Your task to perform on an android device: remove spam from my inbox in the gmail app Image 0: 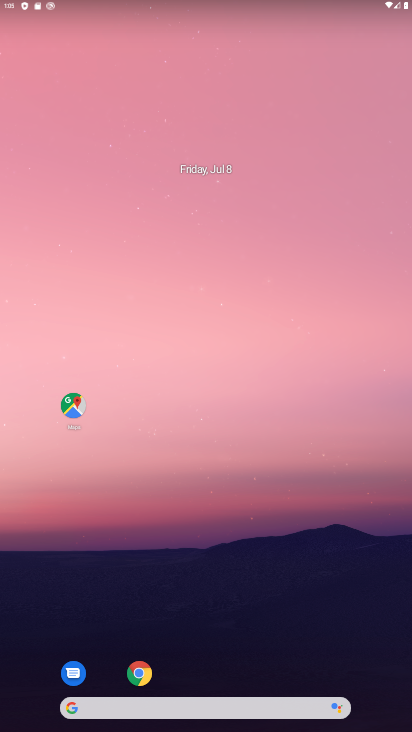
Step 0: drag from (191, 644) to (106, 232)
Your task to perform on an android device: remove spam from my inbox in the gmail app Image 1: 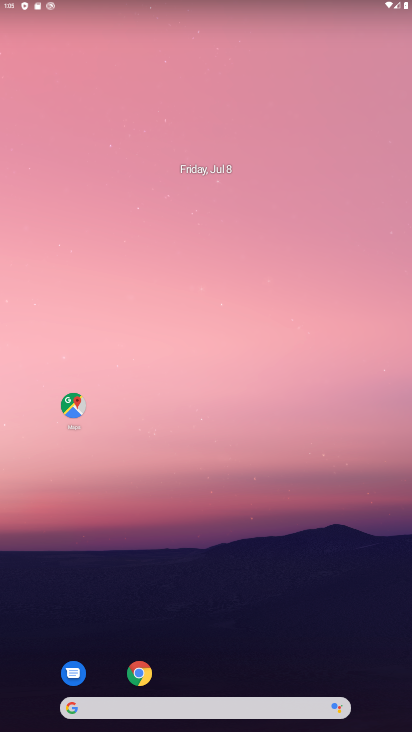
Step 1: drag from (213, 676) to (59, 104)
Your task to perform on an android device: remove spam from my inbox in the gmail app Image 2: 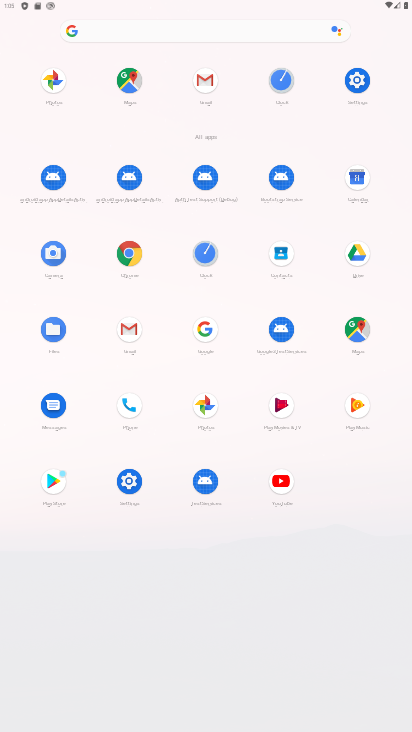
Step 2: click (137, 324)
Your task to perform on an android device: remove spam from my inbox in the gmail app Image 3: 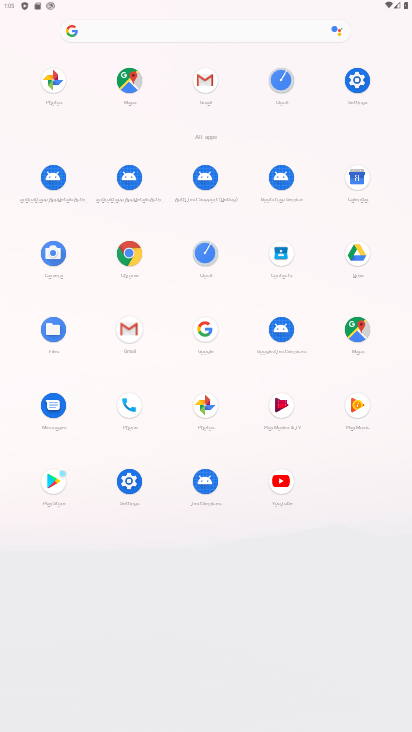
Step 3: click (137, 324)
Your task to perform on an android device: remove spam from my inbox in the gmail app Image 4: 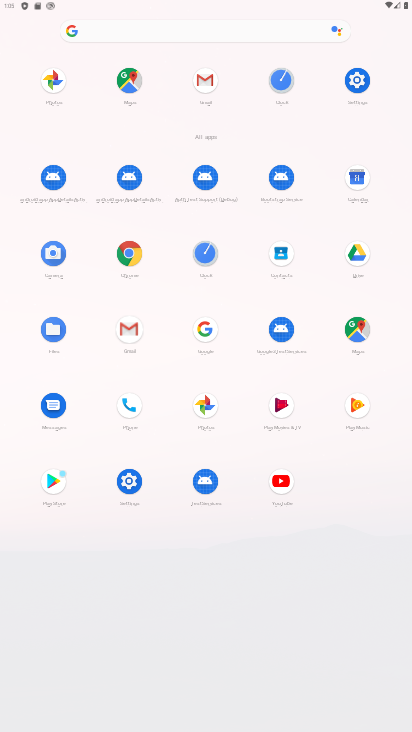
Step 4: click (136, 325)
Your task to perform on an android device: remove spam from my inbox in the gmail app Image 5: 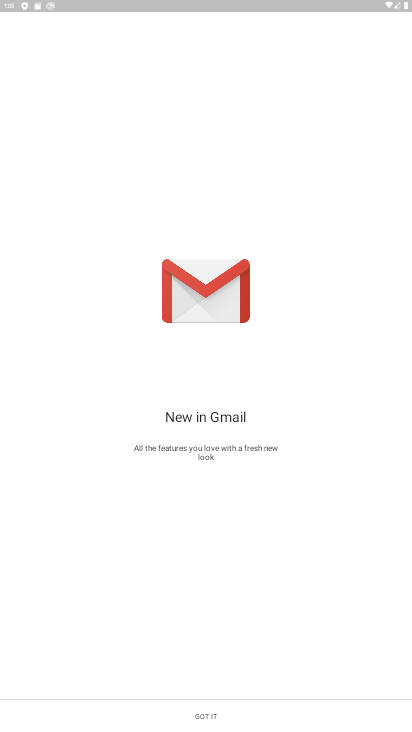
Step 5: click (219, 712)
Your task to perform on an android device: remove spam from my inbox in the gmail app Image 6: 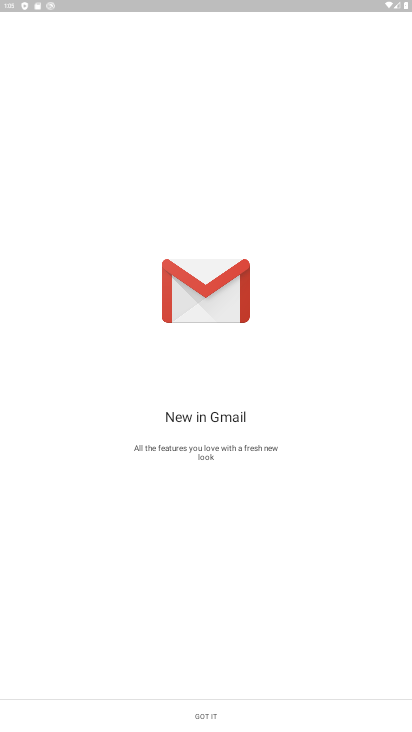
Step 6: click (219, 712)
Your task to perform on an android device: remove spam from my inbox in the gmail app Image 7: 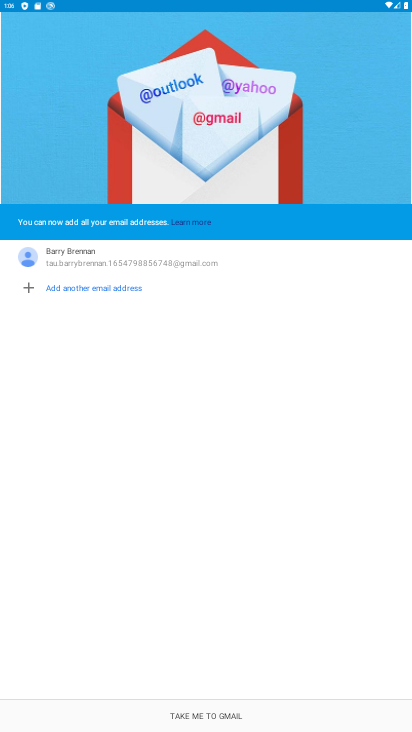
Step 7: click (231, 716)
Your task to perform on an android device: remove spam from my inbox in the gmail app Image 8: 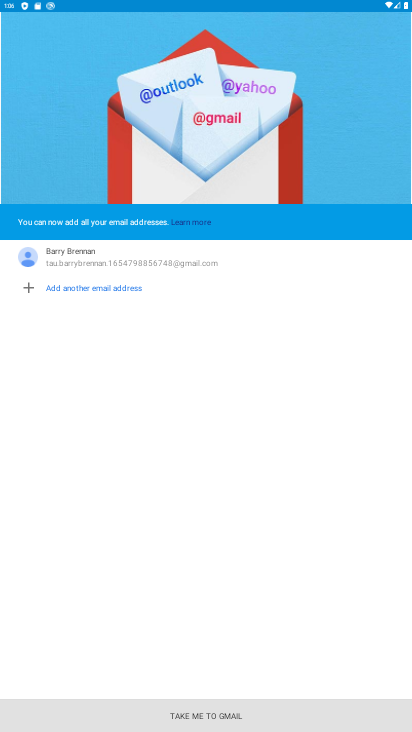
Step 8: click (227, 721)
Your task to perform on an android device: remove spam from my inbox in the gmail app Image 9: 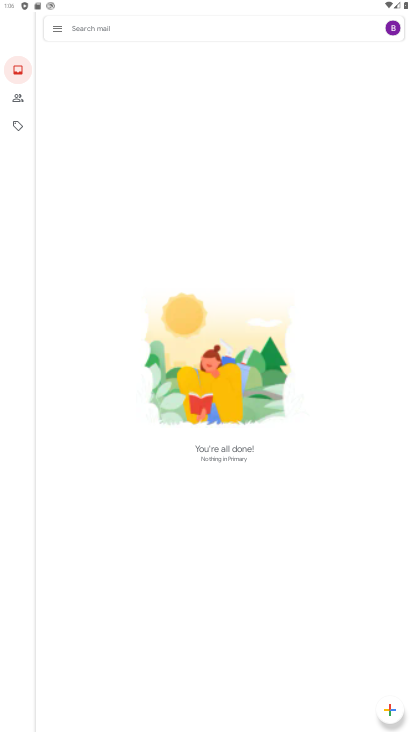
Step 9: click (20, 69)
Your task to perform on an android device: remove spam from my inbox in the gmail app Image 10: 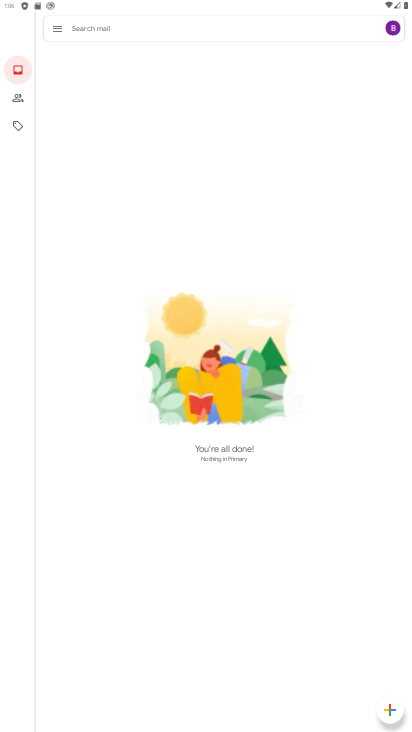
Step 10: click (20, 69)
Your task to perform on an android device: remove spam from my inbox in the gmail app Image 11: 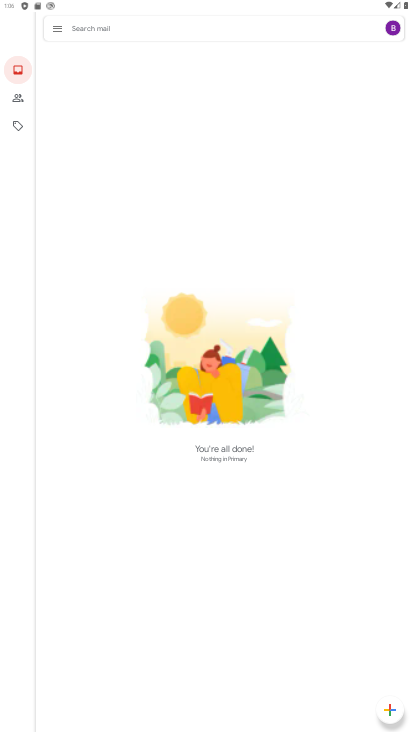
Step 11: click (14, 67)
Your task to perform on an android device: remove spam from my inbox in the gmail app Image 12: 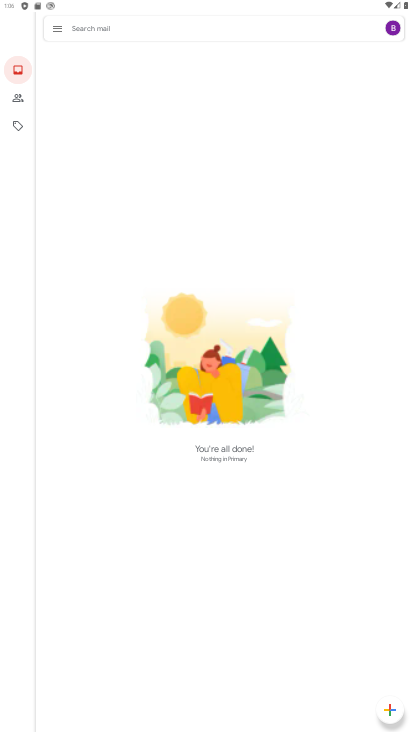
Step 12: click (14, 66)
Your task to perform on an android device: remove spam from my inbox in the gmail app Image 13: 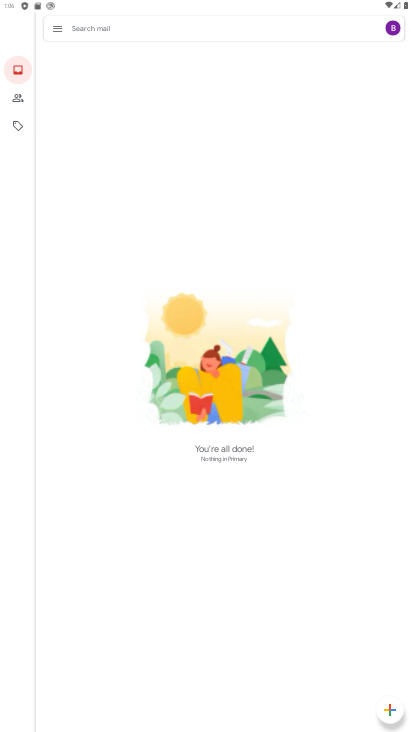
Step 13: click (14, 66)
Your task to perform on an android device: remove spam from my inbox in the gmail app Image 14: 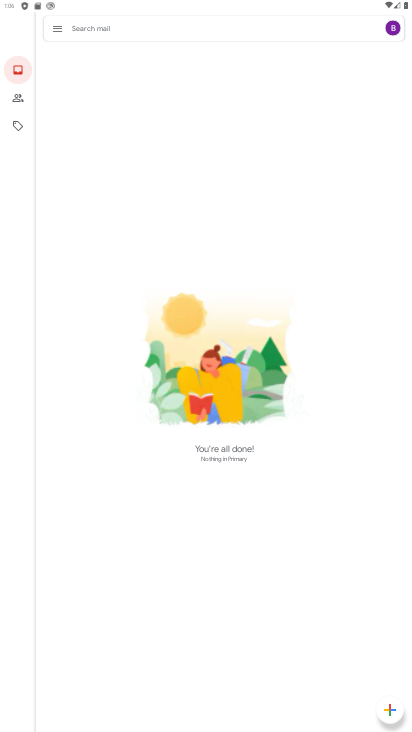
Step 14: click (20, 68)
Your task to perform on an android device: remove spam from my inbox in the gmail app Image 15: 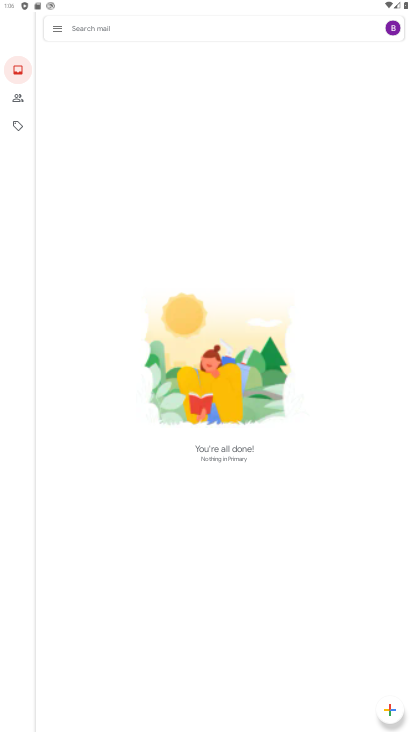
Step 15: click (17, 70)
Your task to perform on an android device: remove spam from my inbox in the gmail app Image 16: 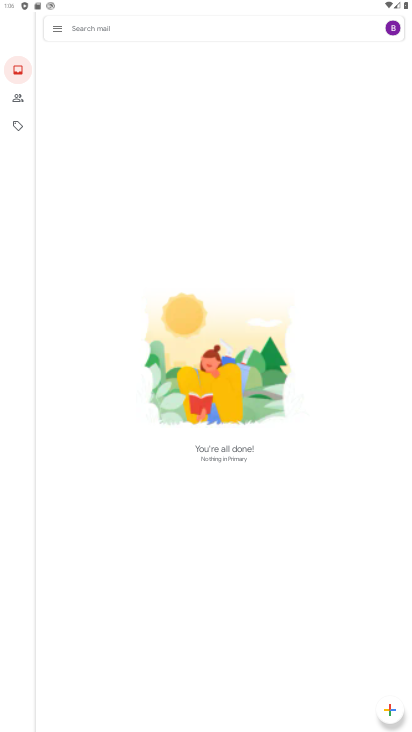
Step 16: click (17, 70)
Your task to perform on an android device: remove spam from my inbox in the gmail app Image 17: 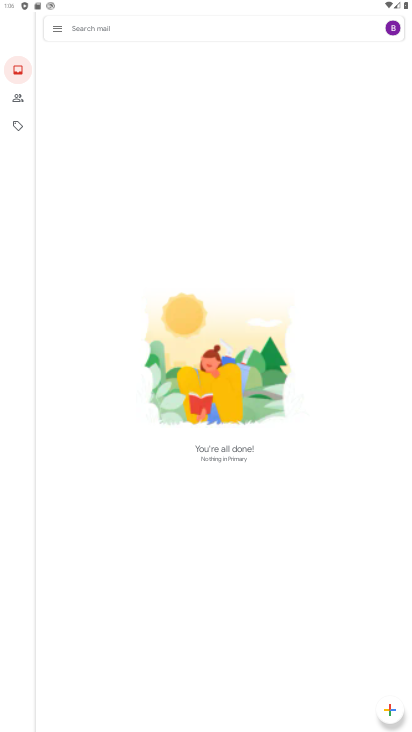
Step 17: click (18, 70)
Your task to perform on an android device: remove spam from my inbox in the gmail app Image 18: 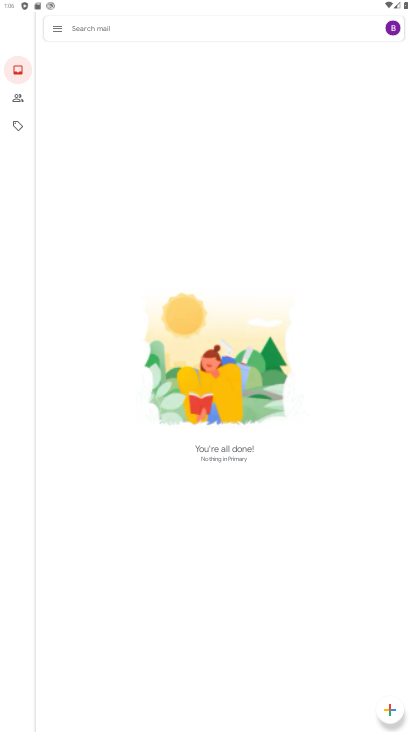
Step 18: click (19, 70)
Your task to perform on an android device: remove spam from my inbox in the gmail app Image 19: 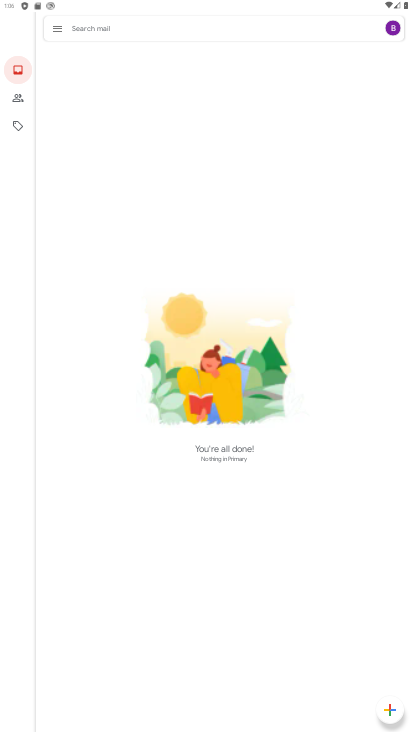
Step 19: click (19, 70)
Your task to perform on an android device: remove spam from my inbox in the gmail app Image 20: 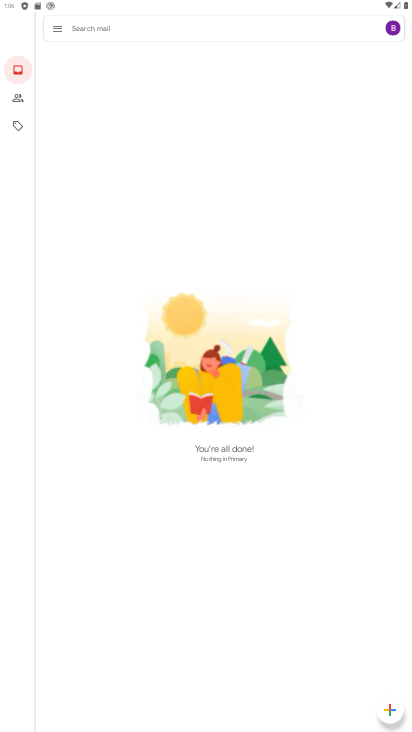
Step 20: click (19, 70)
Your task to perform on an android device: remove spam from my inbox in the gmail app Image 21: 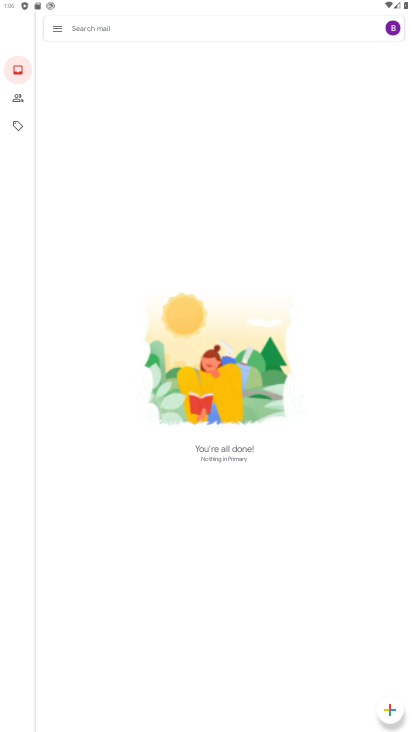
Step 21: click (19, 70)
Your task to perform on an android device: remove spam from my inbox in the gmail app Image 22: 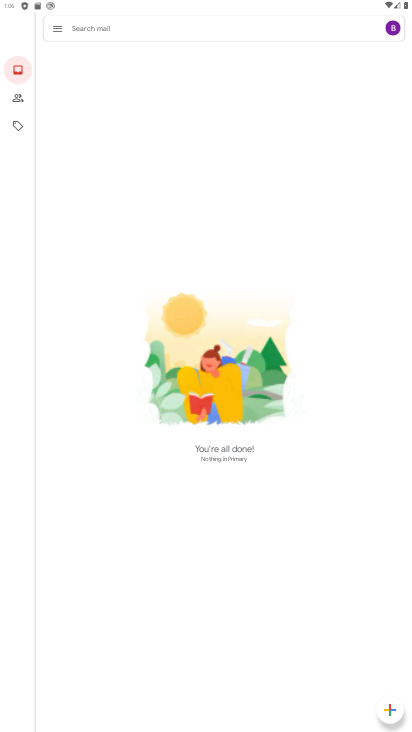
Step 22: click (19, 70)
Your task to perform on an android device: remove spam from my inbox in the gmail app Image 23: 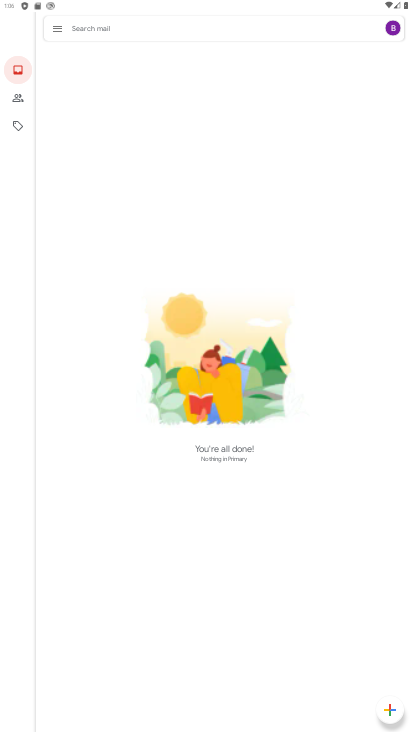
Step 23: click (19, 70)
Your task to perform on an android device: remove spam from my inbox in the gmail app Image 24: 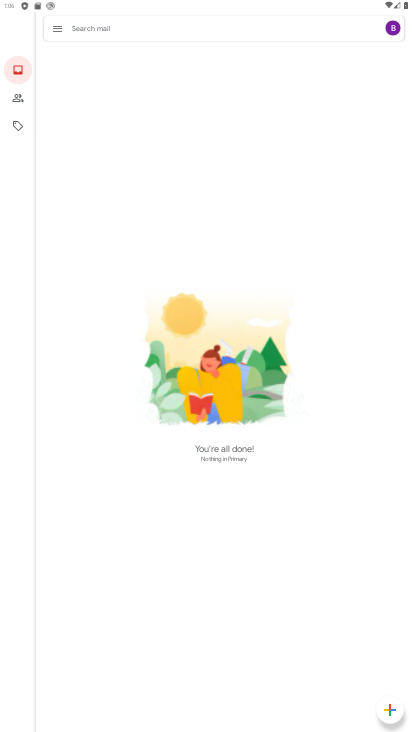
Step 24: click (19, 70)
Your task to perform on an android device: remove spam from my inbox in the gmail app Image 25: 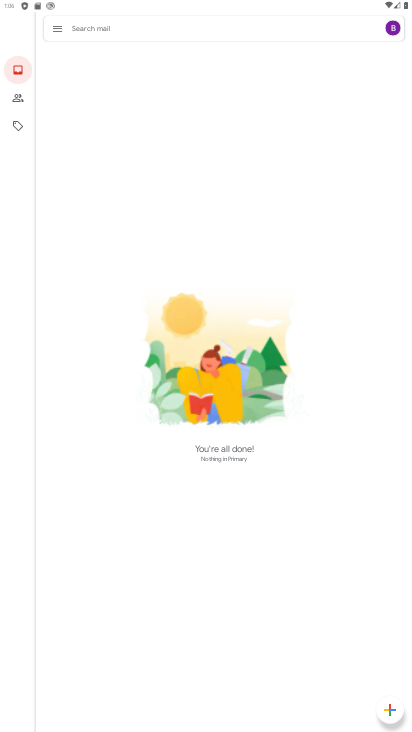
Step 25: click (19, 70)
Your task to perform on an android device: remove spam from my inbox in the gmail app Image 26: 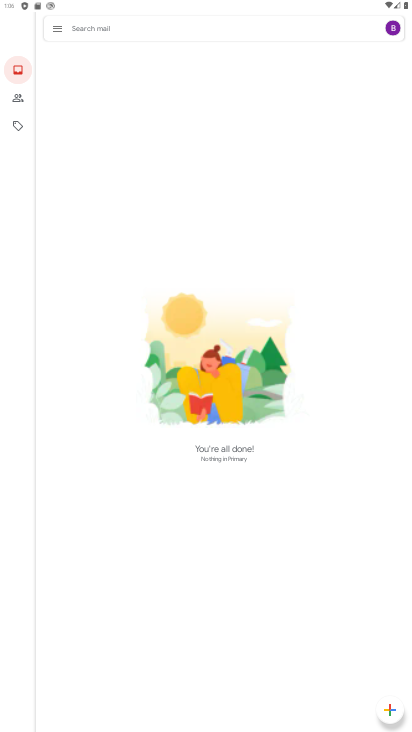
Step 26: click (19, 70)
Your task to perform on an android device: remove spam from my inbox in the gmail app Image 27: 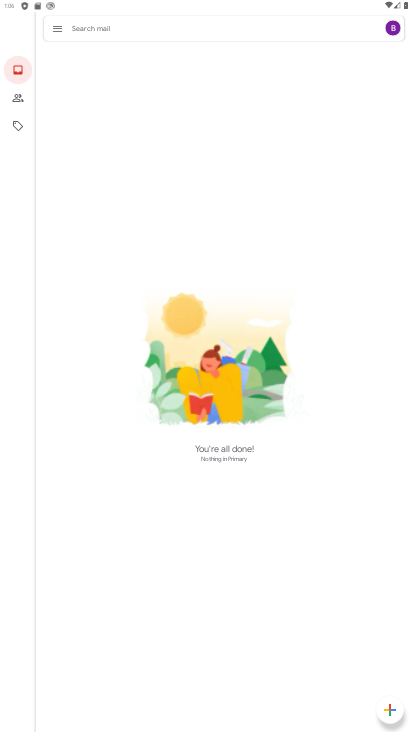
Step 27: click (19, 70)
Your task to perform on an android device: remove spam from my inbox in the gmail app Image 28: 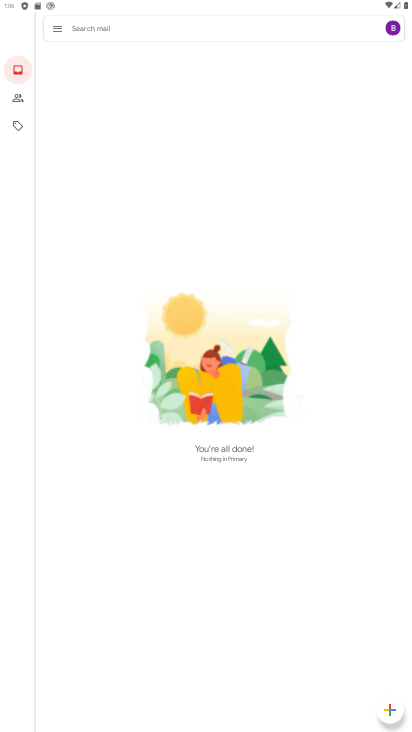
Step 28: click (19, 70)
Your task to perform on an android device: remove spam from my inbox in the gmail app Image 29: 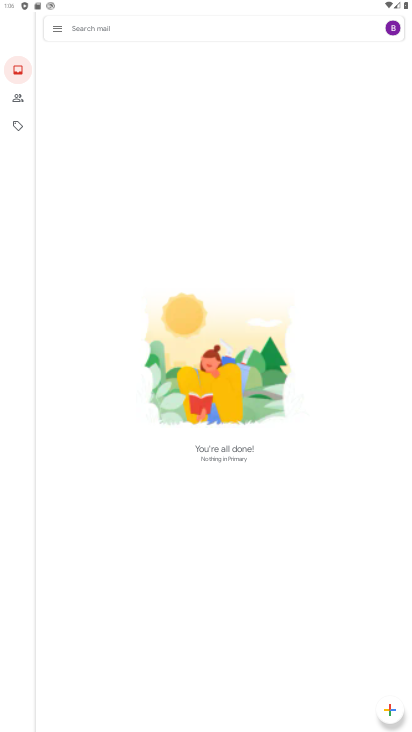
Step 29: click (19, 70)
Your task to perform on an android device: remove spam from my inbox in the gmail app Image 30: 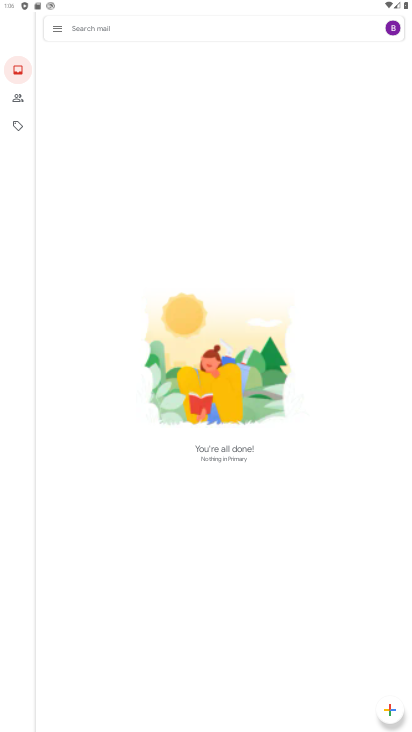
Step 30: click (19, 68)
Your task to perform on an android device: remove spam from my inbox in the gmail app Image 31: 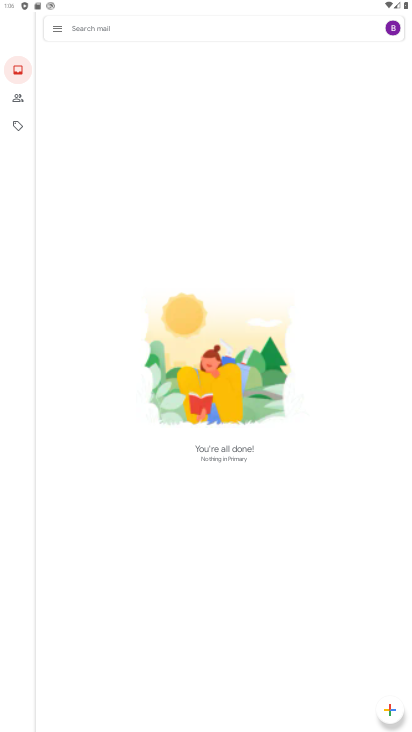
Step 31: click (19, 68)
Your task to perform on an android device: remove spam from my inbox in the gmail app Image 32: 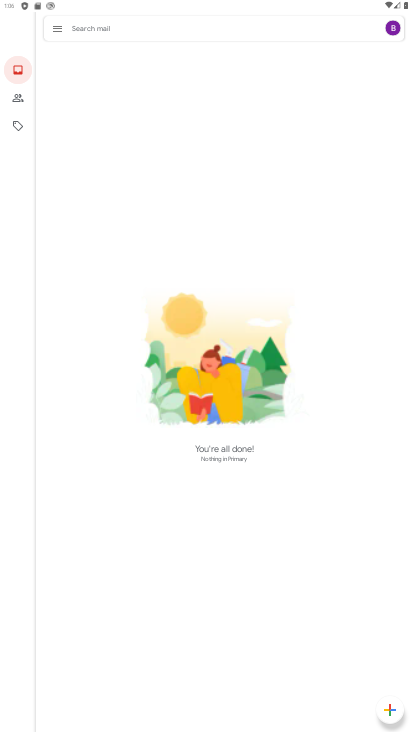
Step 32: click (20, 66)
Your task to perform on an android device: remove spam from my inbox in the gmail app Image 33: 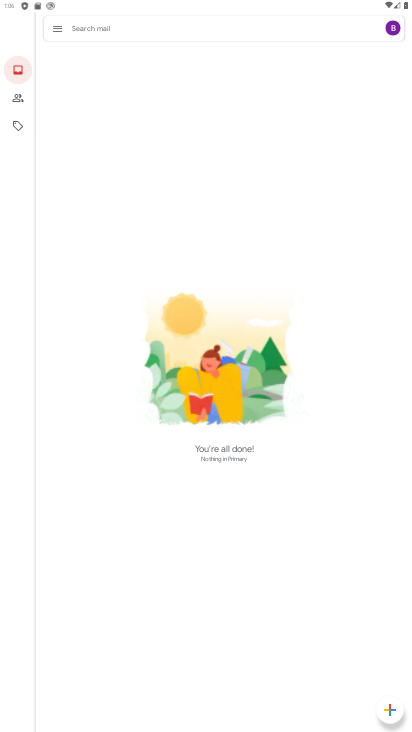
Step 33: click (20, 66)
Your task to perform on an android device: remove spam from my inbox in the gmail app Image 34: 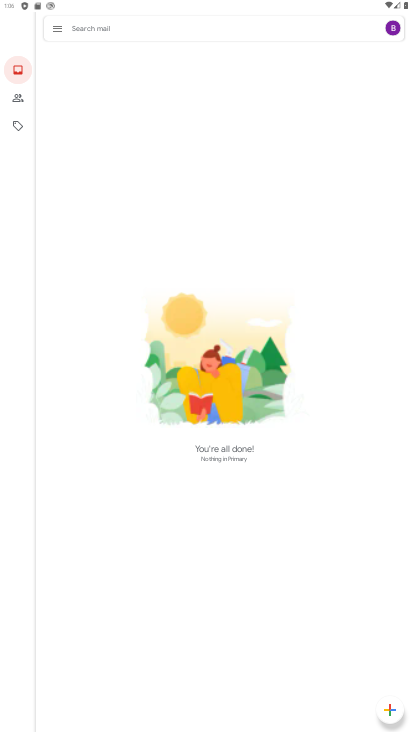
Step 34: click (64, 16)
Your task to perform on an android device: remove spam from my inbox in the gmail app Image 35: 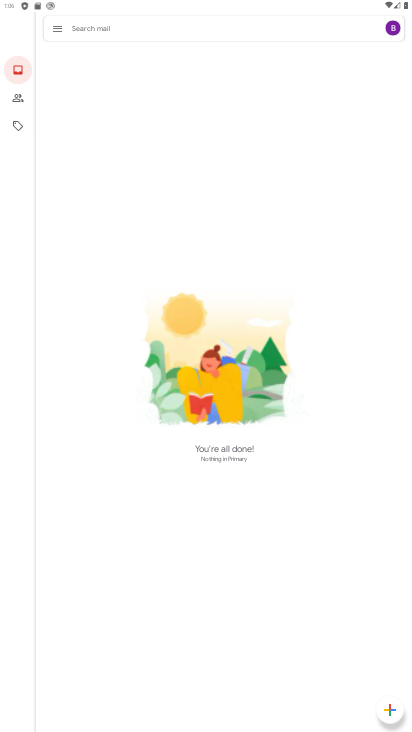
Step 35: click (51, 38)
Your task to perform on an android device: remove spam from my inbox in the gmail app Image 36: 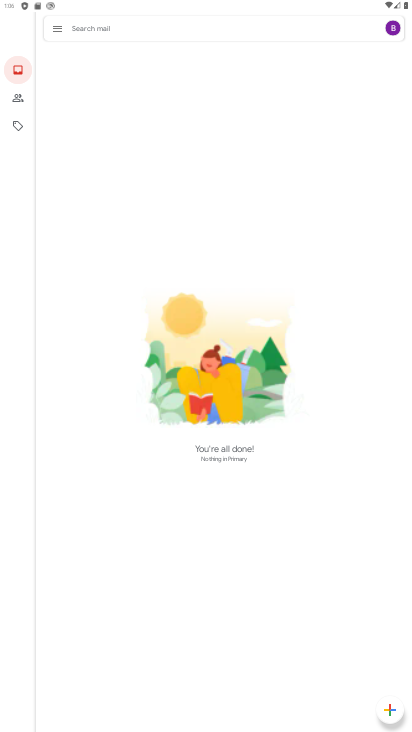
Step 36: click (52, 37)
Your task to perform on an android device: remove spam from my inbox in the gmail app Image 37: 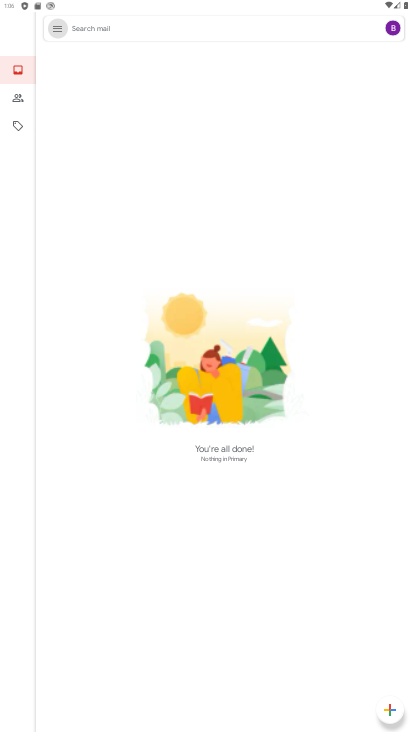
Step 37: click (53, 36)
Your task to perform on an android device: remove spam from my inbox in the gmail app Image 38: 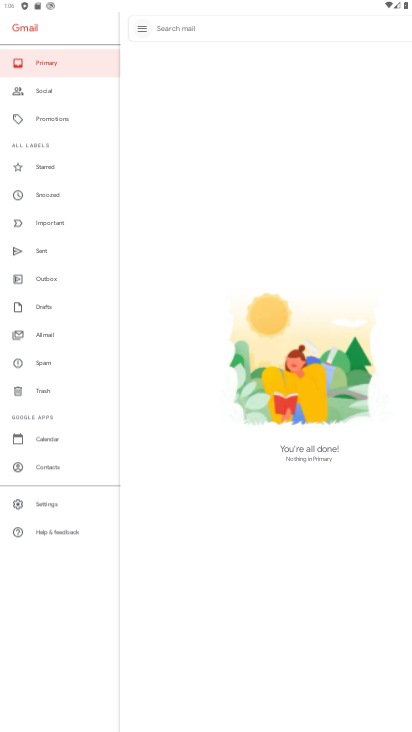
Step 38: click (54, 34)
Your task to perform on an android device: remove spam from my inbox in the gmail app Image 39: 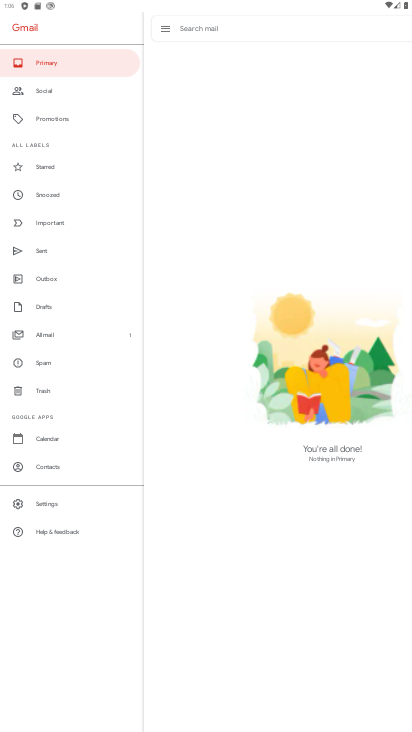
Step 39: click (50, 391)
Your task to perform on an android device: remove spam from my inbox in the gmail app Image 40: 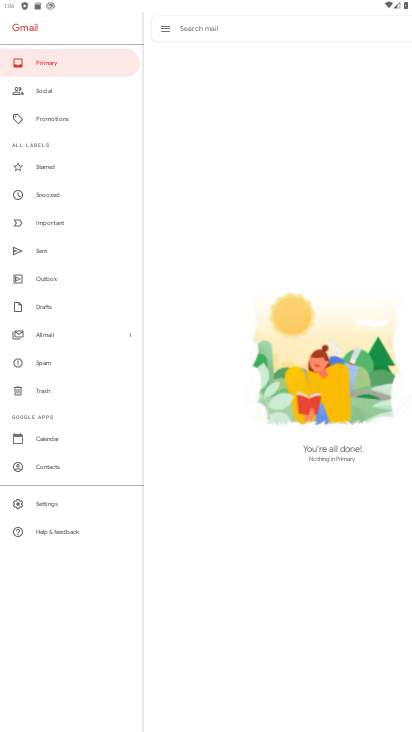
Step 40: click (50, 391)
Your task to perform on an android device: remove spam from my inbox in the gmail app Image 41: 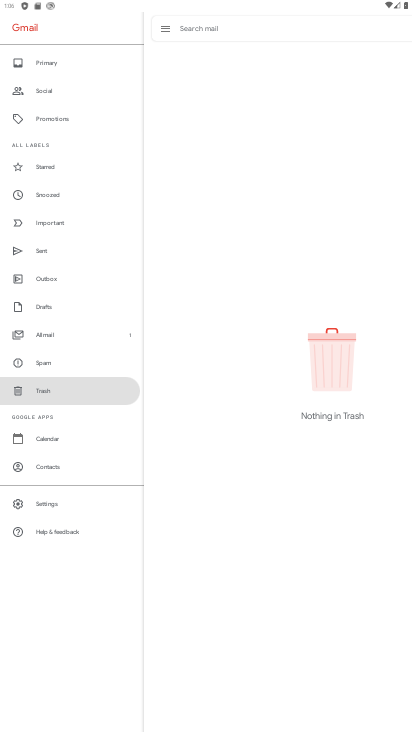
Step 41: click (38, 355)
Your task to perform on an android device: remove spam from my inbox in the gmail app Image 42: 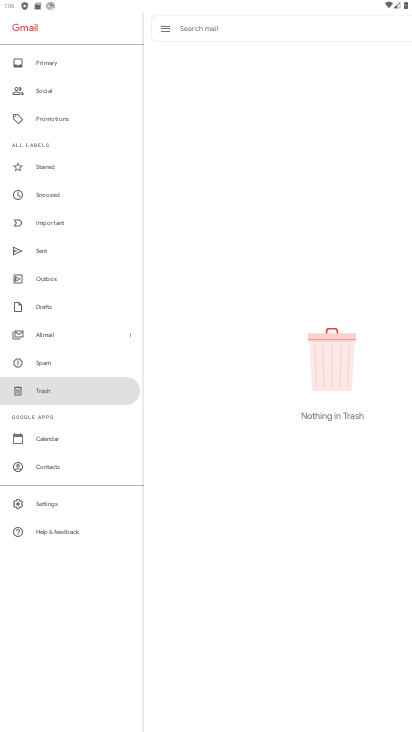
Step 42: click (38, 355)
Your task to perform on an android device: remove spam from my inbox in the gmail app Image 43: 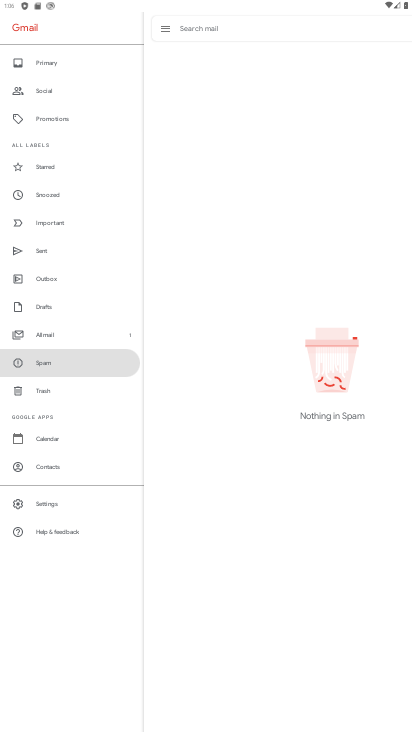
Step 43: task complete